Your task to perform on an android device: install app "NewsBreak: Local News & Alerts" Image 0: 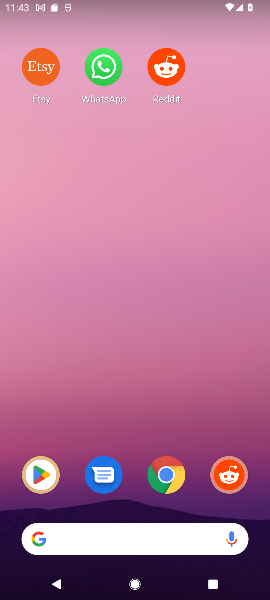
Step 0: click (31, 469)
Your task to perform on an android device: install app "NewsBreak: Local News & Alerts" Image 1: 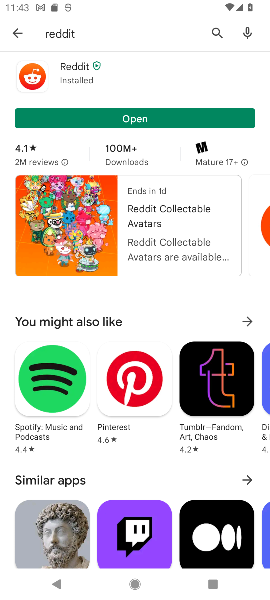
Step 1: click (214, 30)
Your task to perform on an android device: install app "NewsBreak: Local News & Alerts" Image 2: 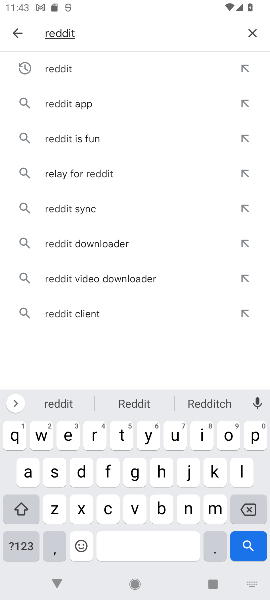
Step 2: click (255, 30)
Your task to perform on an android device: install app "NewsBreak: Local News & Alerts" Image 3: 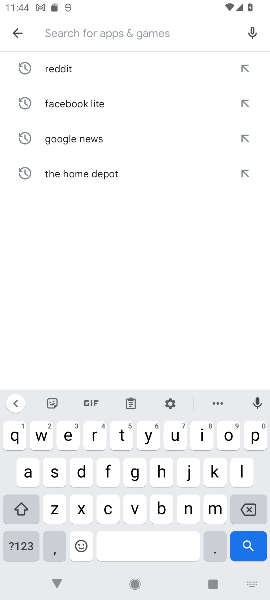
Step 3: type "NewsBreak: Local News & Alerts"
Your task to perform on an android device: install app "NewsBreak: Local News & Alerts" Image 4: 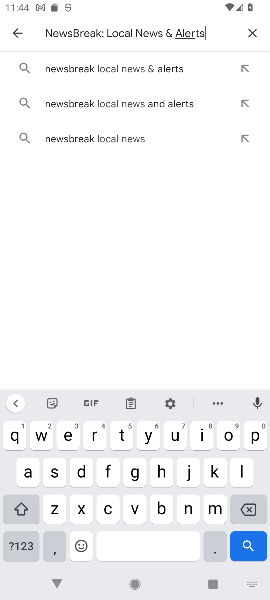
Step 4: type ""
Your task to perform on an android device: install app "NewsBreak: Local News & Alerts" Image 5: 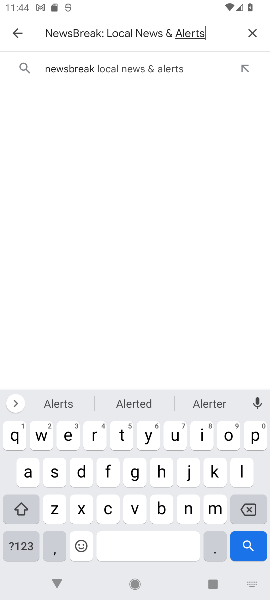
Step 5: click (83, 61)
Your task to perform on an android device: install app "NewsBreak: Local News & Alerts" Image 6: 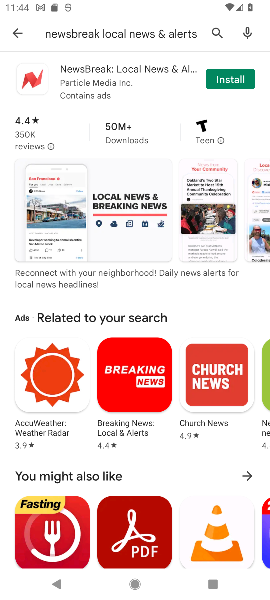
Step 6: click (234, 77)
Your task to perform on an android device: install app "NewsBreak: Local News & Alerts" Image 7: 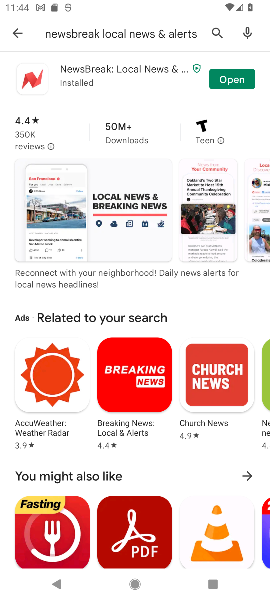
Step 7: task complete